Your task to perform on an android device: install app "Microsoft Excel" Image 0: 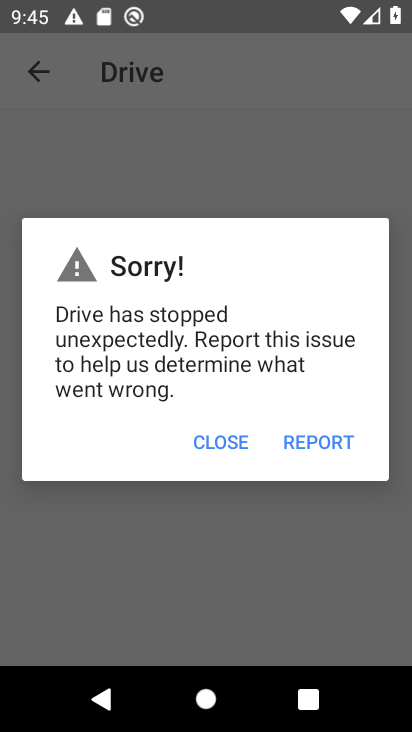
Step 0: press home button
Your task to perform on an android device: install app "Microsoft Excel" Image 1: 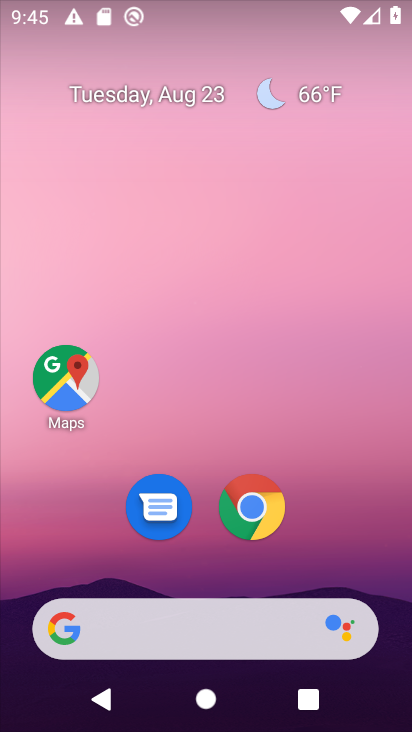
Step 1: drag from (394, 624) to (371, 132)
Your task to perform on an android device: install app "Microsoft Excel" Image 2: 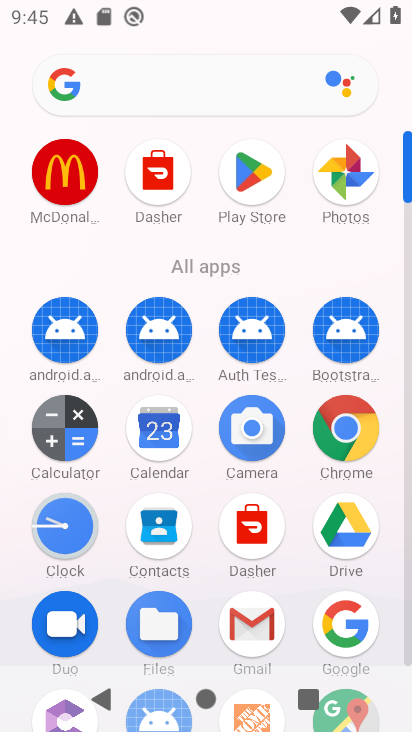
Step 2: click (409, 645)
Your task to perform on an android device: install app "Microsoft Excel" Image 3: 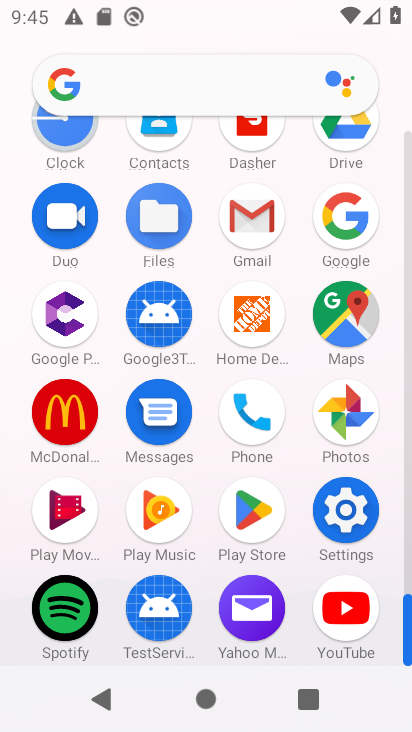
Step 3: click (253, 511)
Your task to perform on an android device: install app "Microsoft Excel" Image 4: 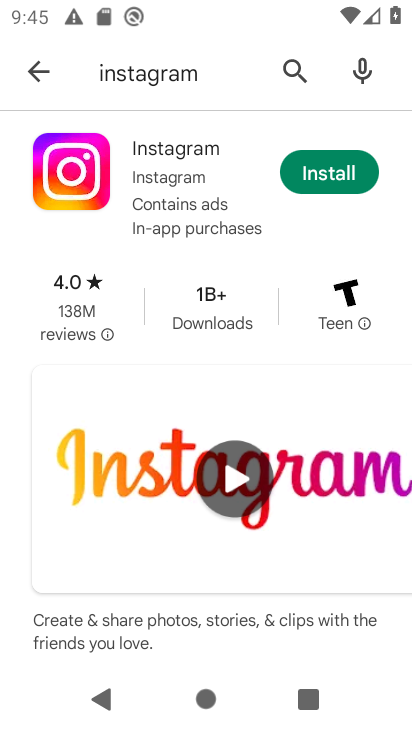
Step 4: click (299, 75)
Your task to perform on an android device: install app "Microsoft Excel" Image 5: 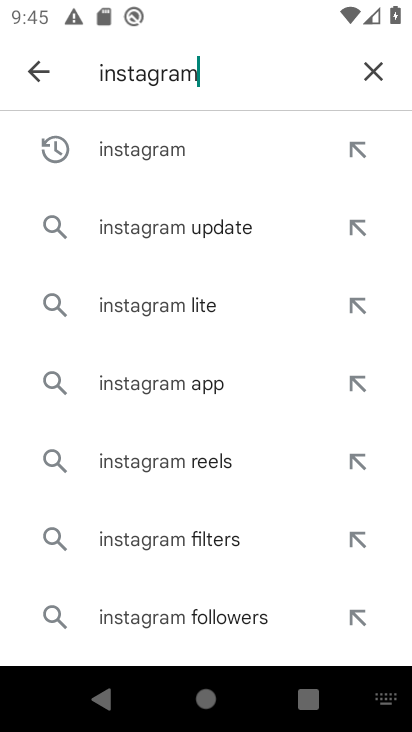
Step 5: click (368, 64)
Your task to perform on an android device: install app "Microsoft Excel" Image 6: 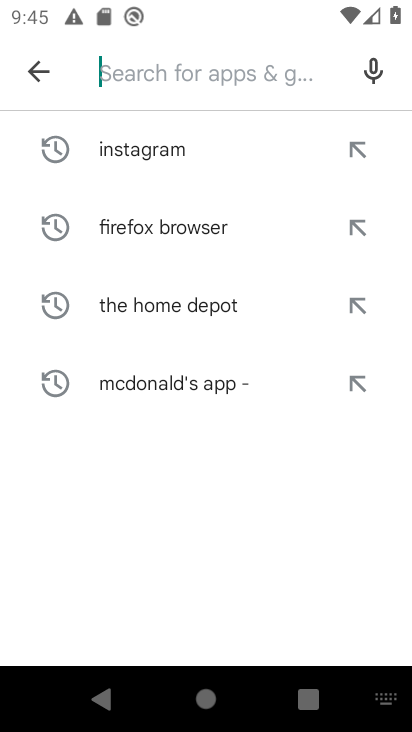
Step 6: type "Microsoft Excel"
Your task to perform on an android device: install app "Microsoft Excel" Image 7: 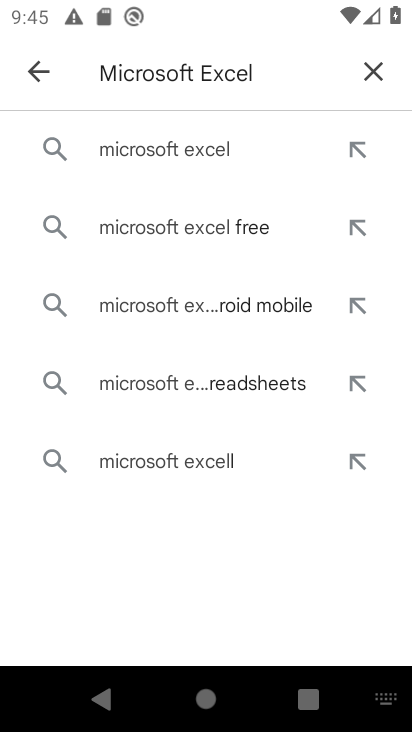
Step 7: click (139, 151)
Your task to perform on an android device: install app "Microsoft Excel" Image 8: 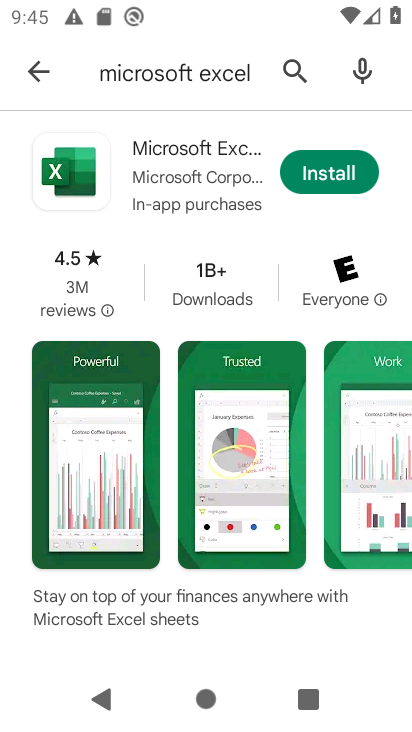
Step 8: click (337, 178)
Your task to perform on an android device: install app "Microsoft Excel" Image 9: 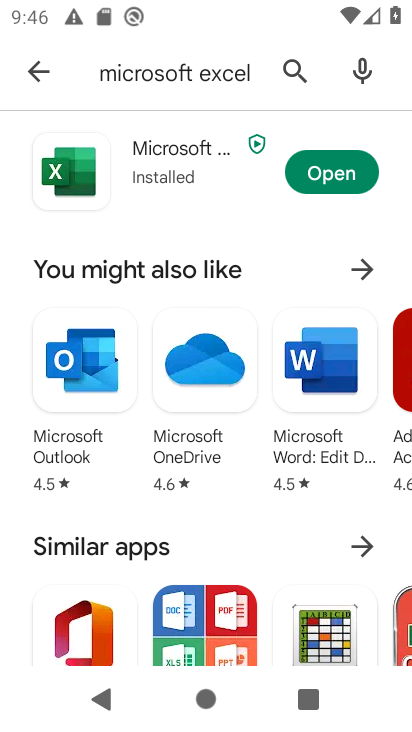
Step 9: task complete